Your task to perform on an android device: find photos in the google photos app Image 0: 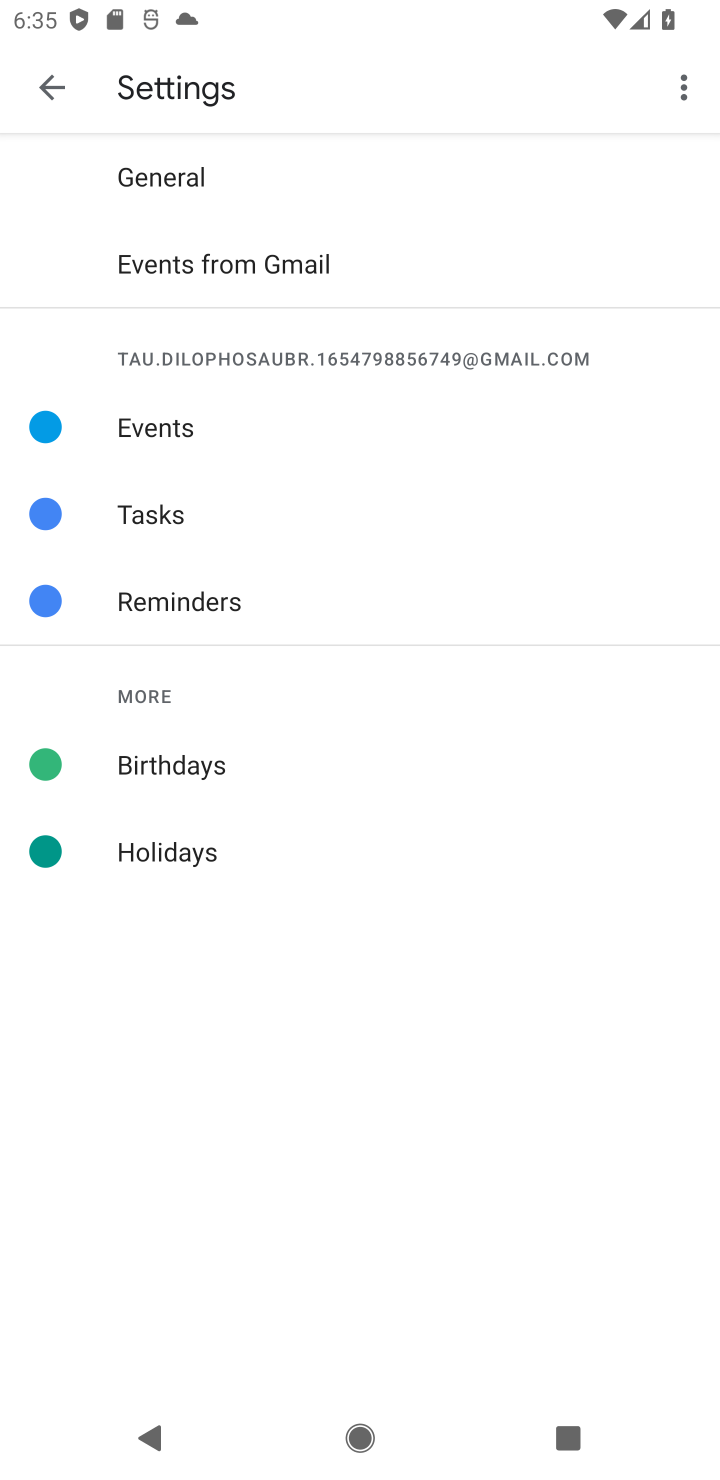
Step 0: press home button
Your task to perform on an android device: find photos in the google photos app Image 1: 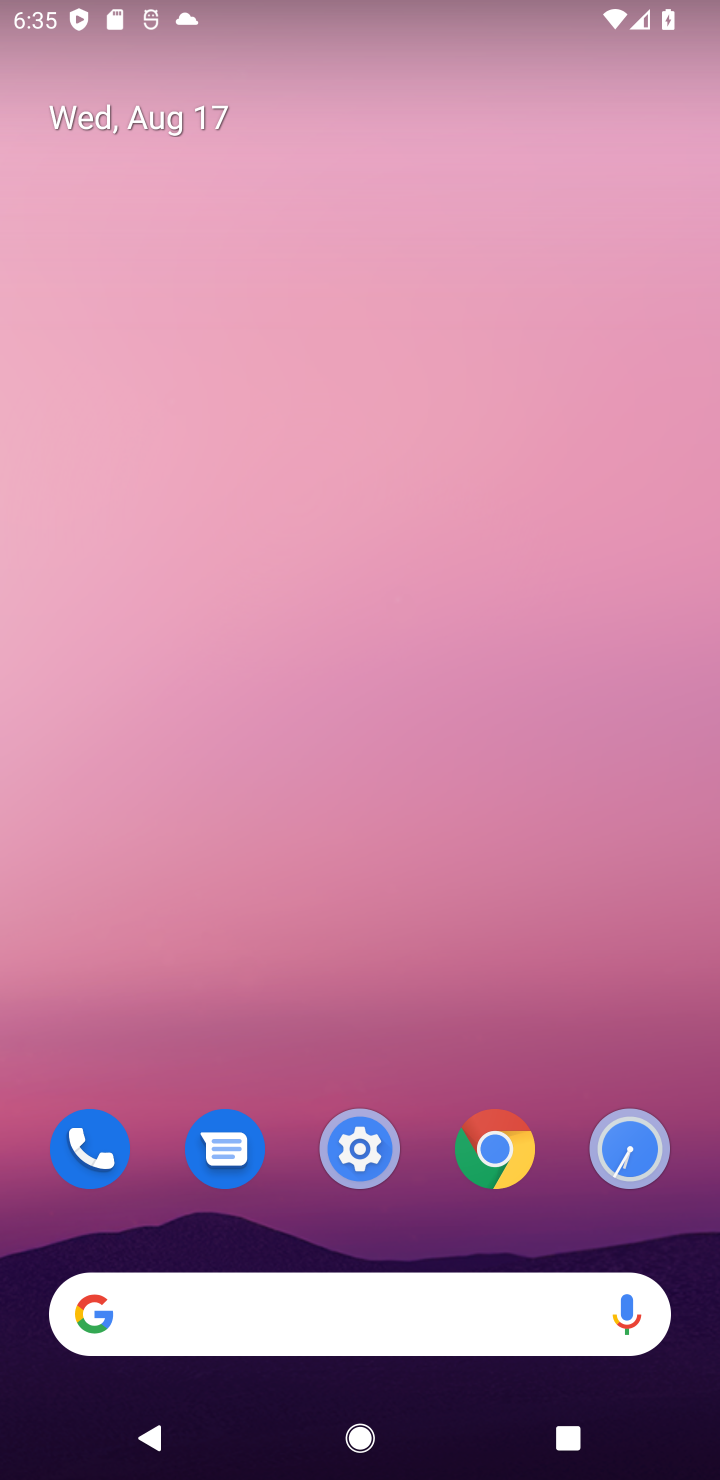
Step 1: drag from (387, 993) to (319, 312)
Your task to perform on an android device: find photos in the google photos app Image 2: 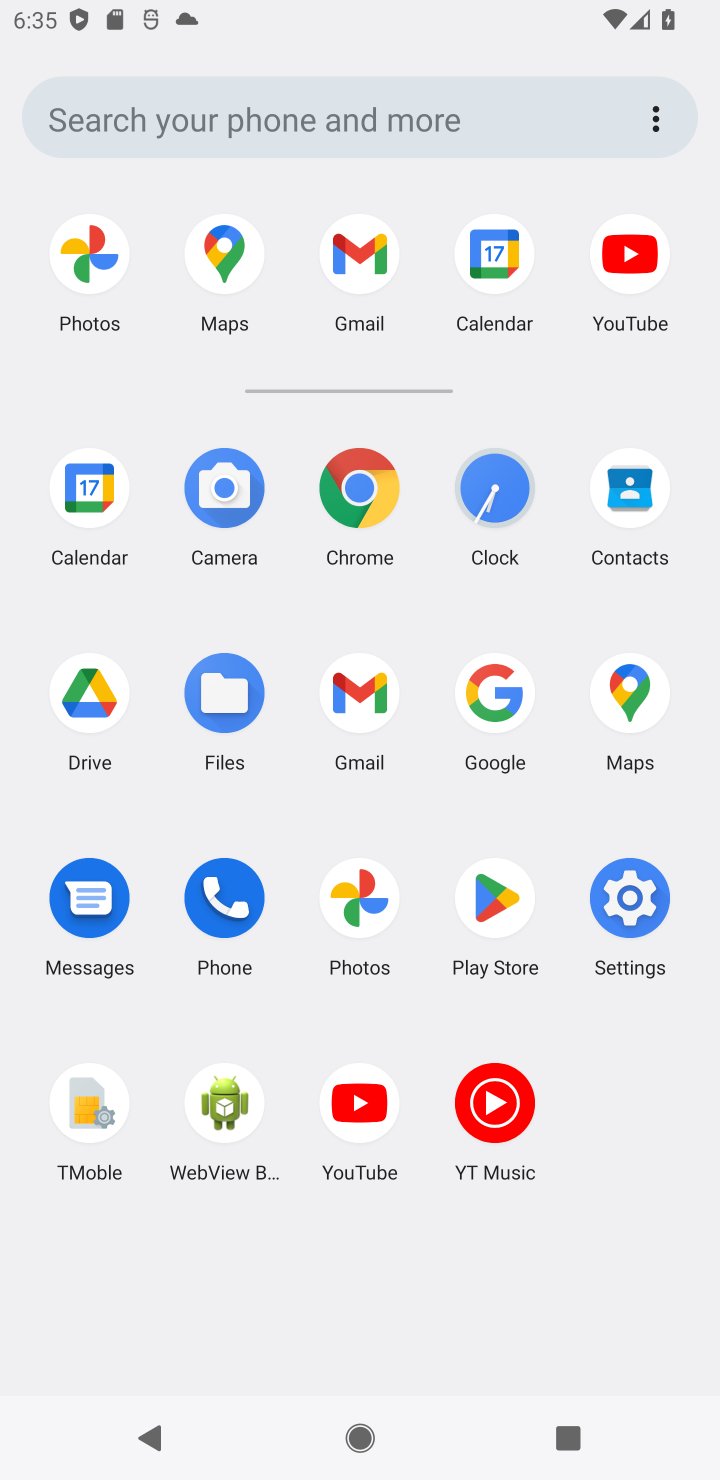
Step 2: click (89, 250)
Your task to perform on an android device: find photos in the google photos app Image 3: 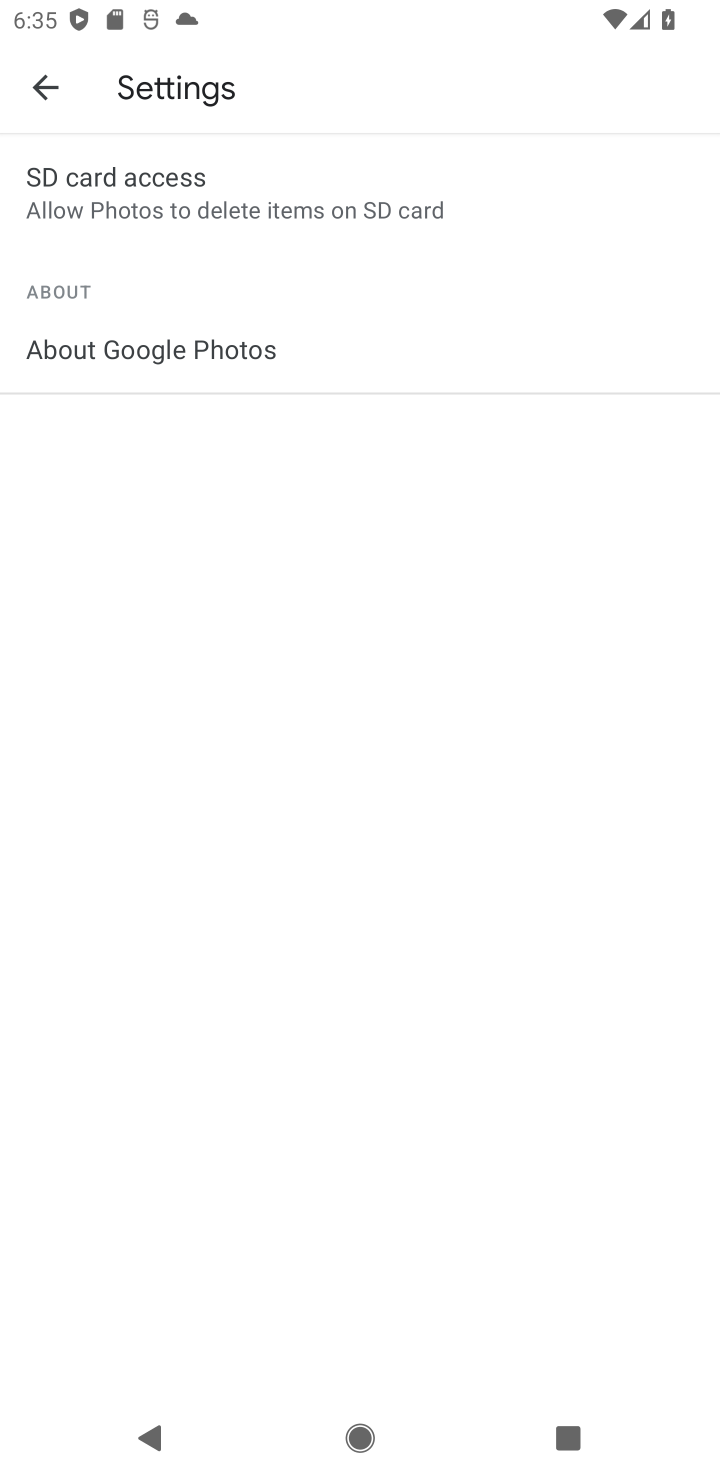
Step 3: click (42, 88)
Your task to perform on an android device: find photos in the google photos app Image 4: 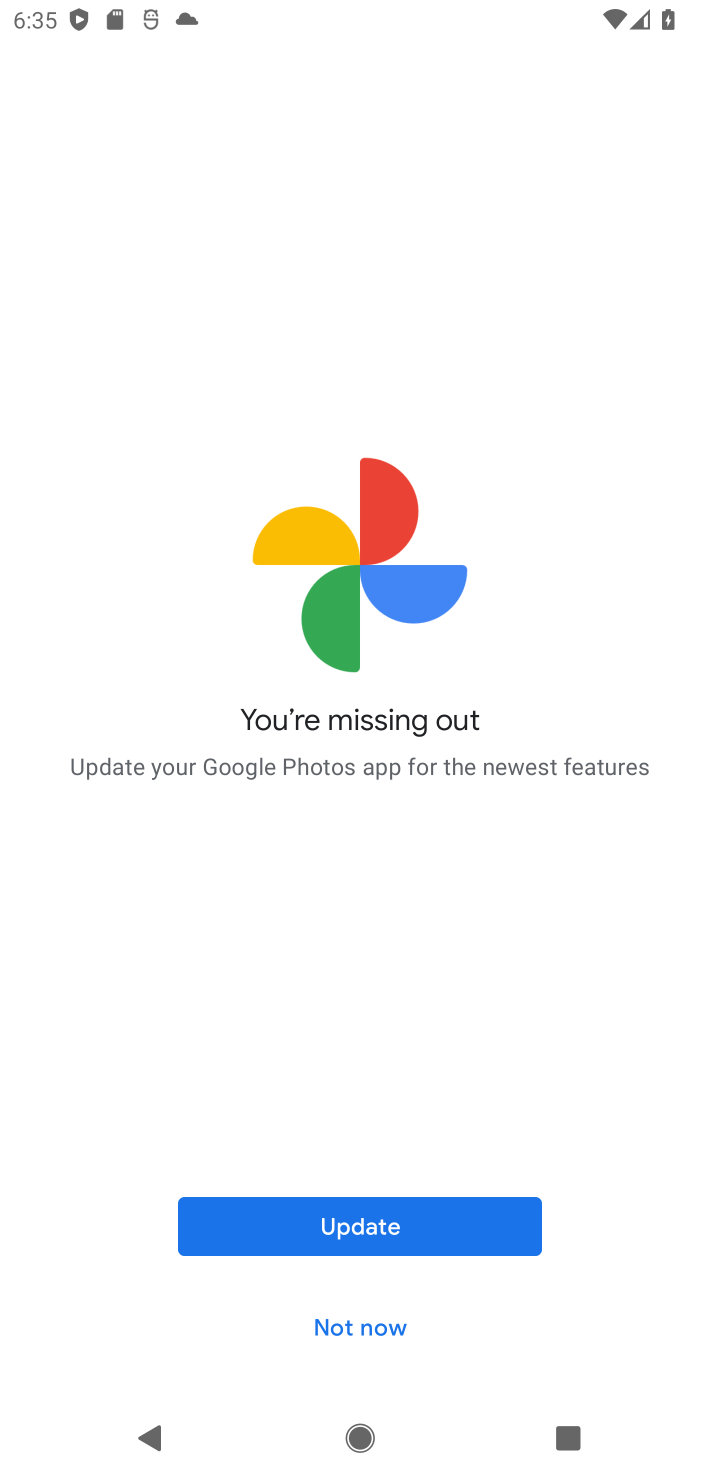
Step 4: click (246, 1222)
Your task to perform on an android device: find photos in the google photos app Image 5: 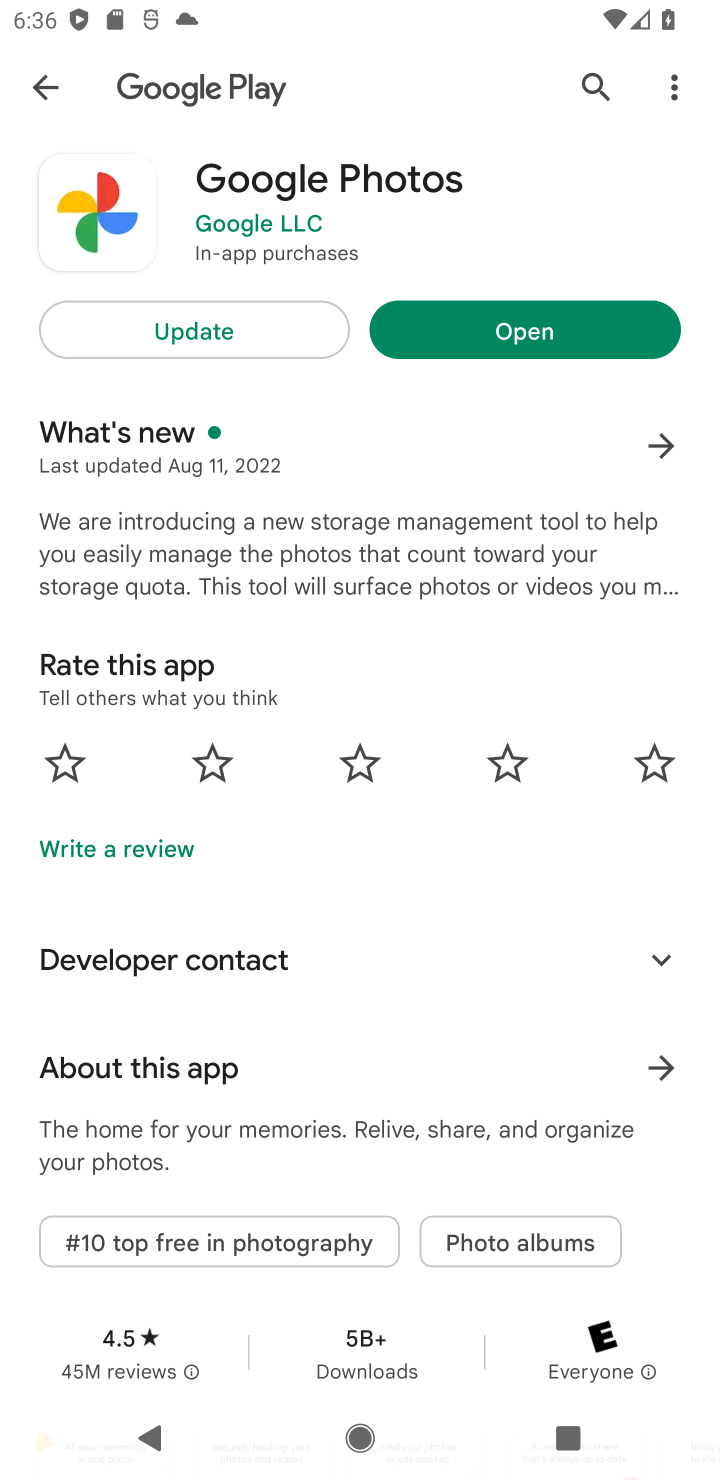
Step 5: click (248, 323)
Your task to perform on an android device: find photos in the google photos app Image 6: 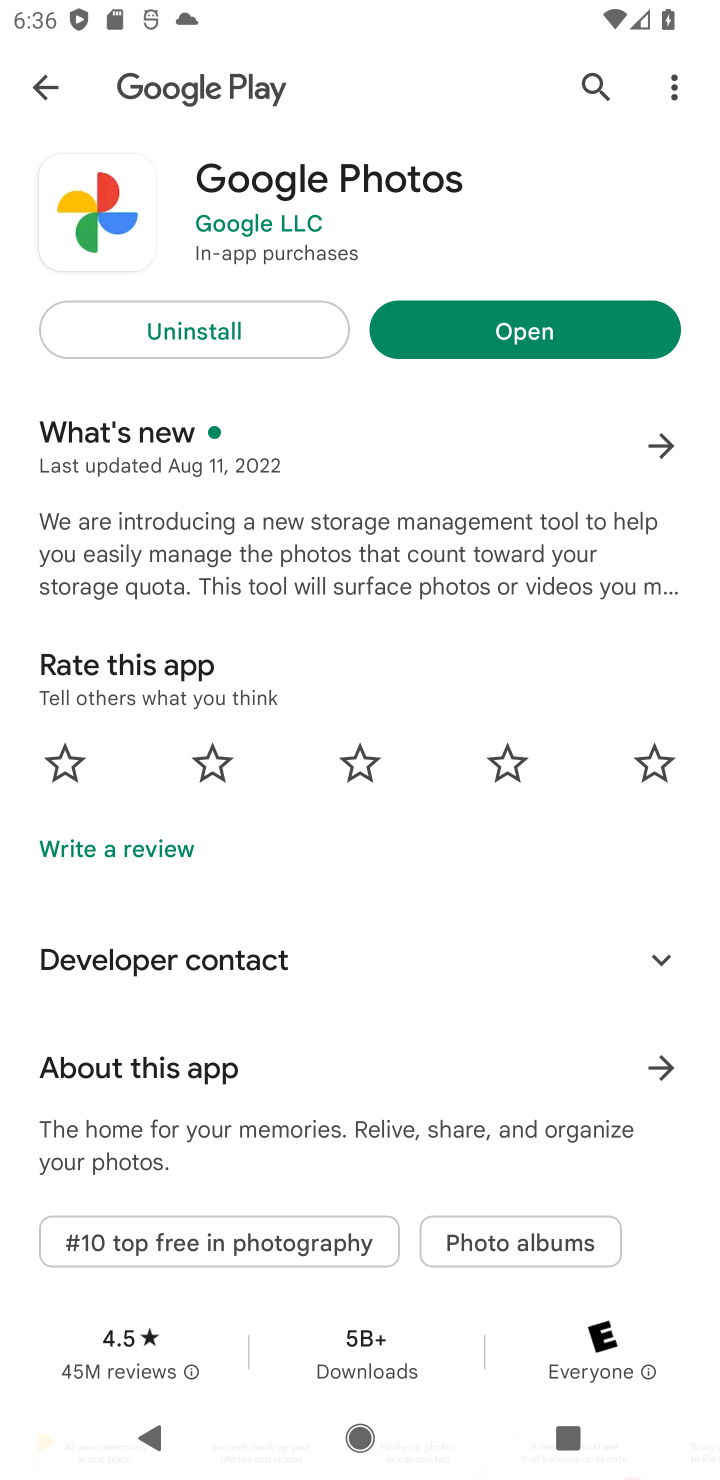
Step 6: click (436, 321)
Your task to perform on an android device: find photos in the google photos app Image 7: 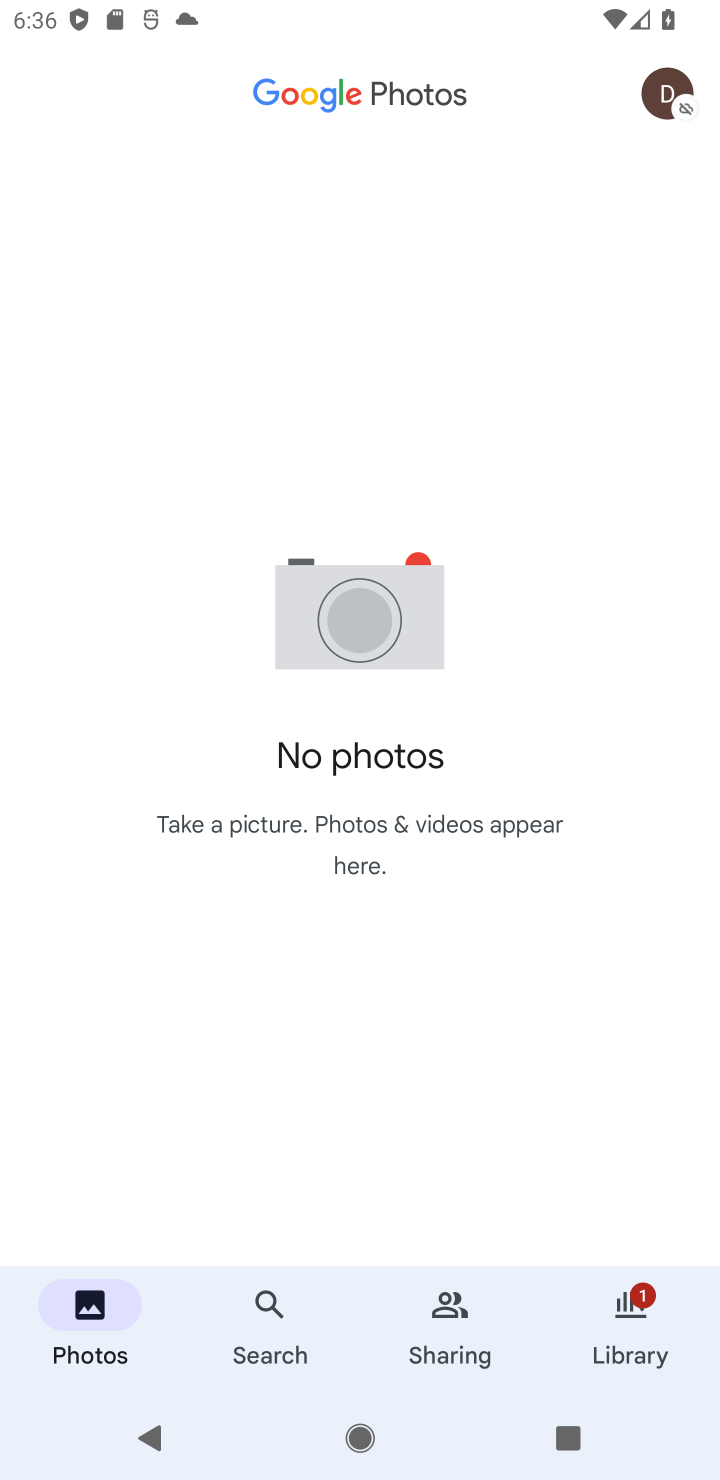
Step 7: click (263, 1300)
Your task to perform on an android device: find photos in the google photos app Image 8: 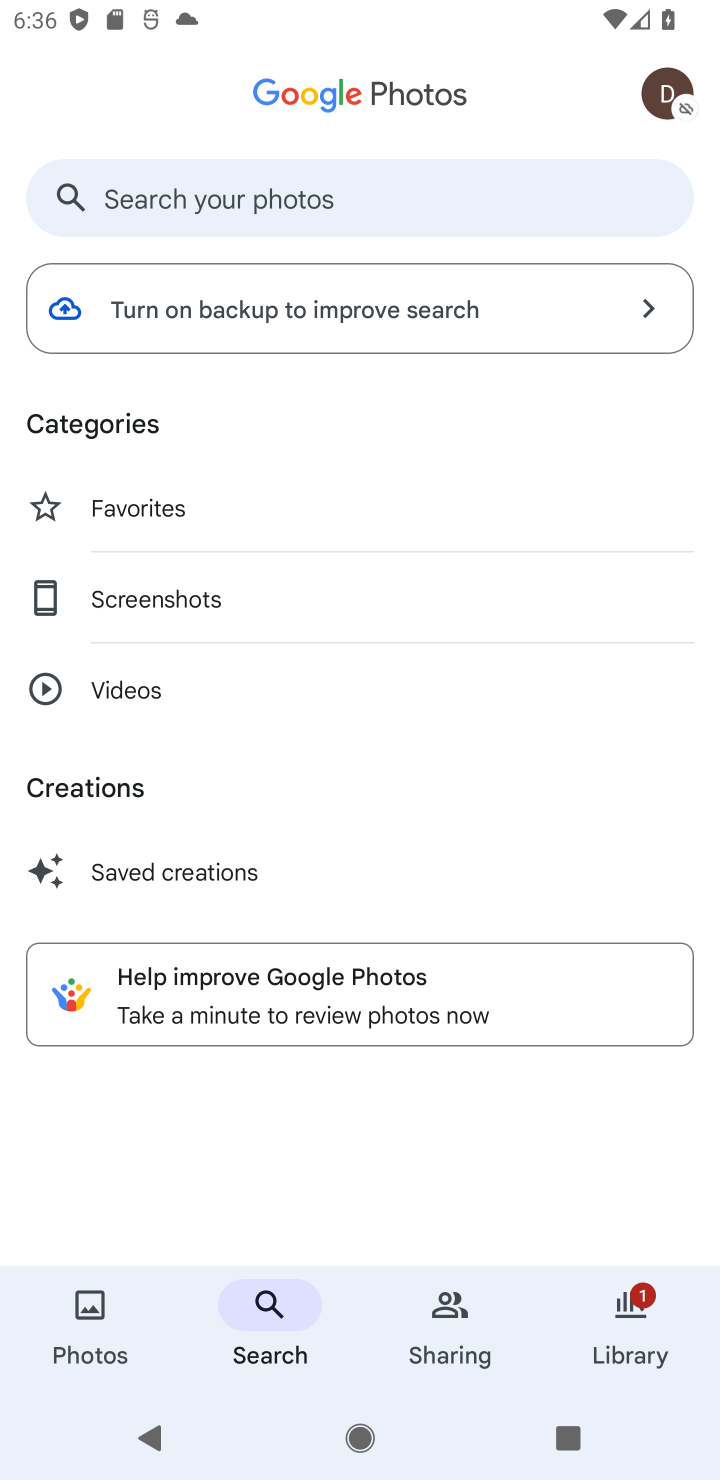
Step 8: task complete